Your task to perform on an android device: change keyboard looks Image 0: 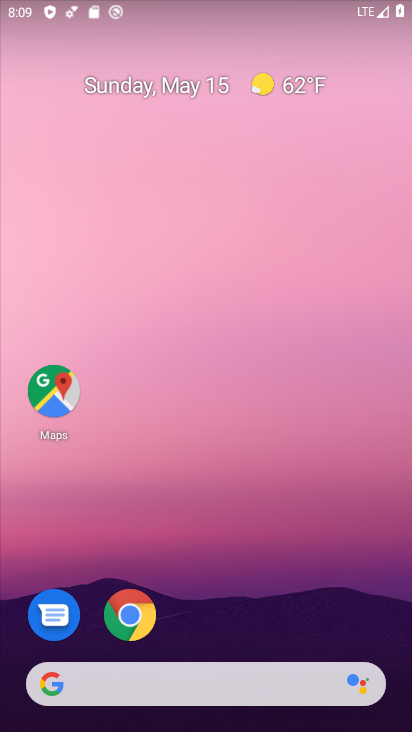
Step 0: drag from (208, 554) to (288, 2)
Your task to perform on an android device: change keyboard looks Image 1: 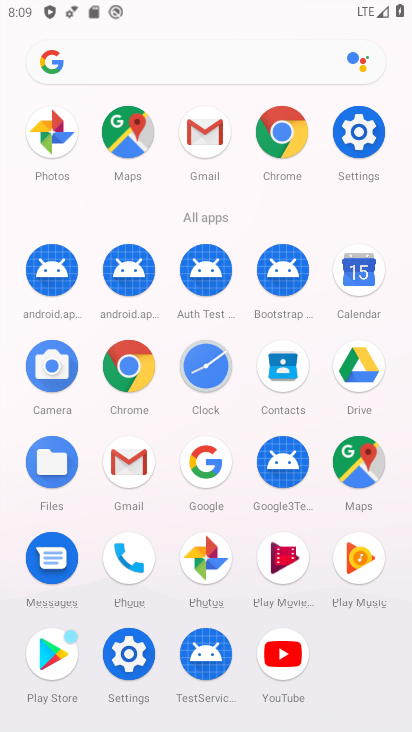
Step 1: click (344, 162)
Your task to perform on an android device: change keyboard looks Image 2: 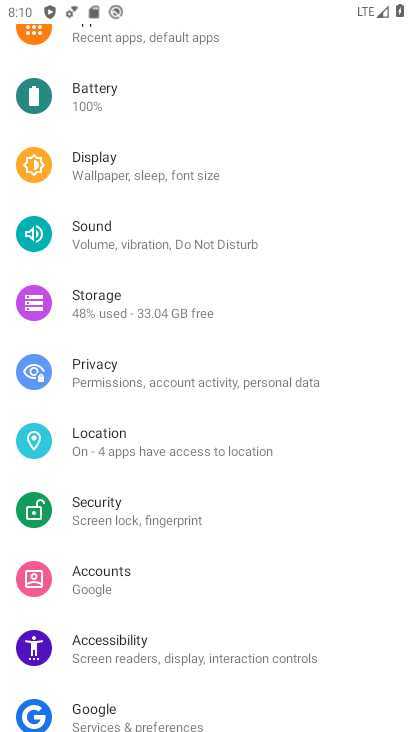
Step 2: drag from (203, 499) to (213, 184)
Your task to perform on an android device: change keyboard looks Image 3: 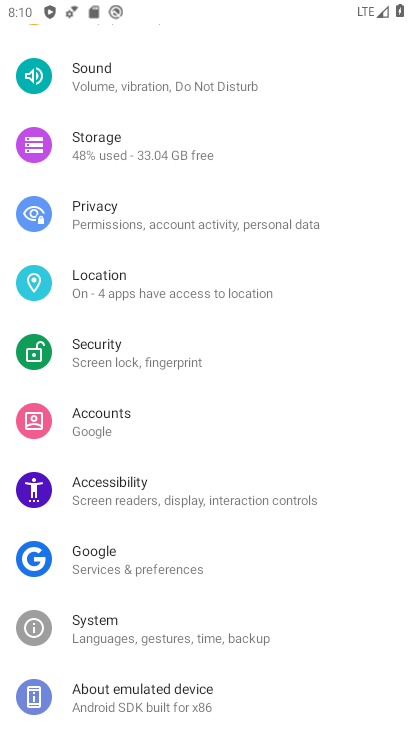
Step 3: click (130, 624)
Your task to perform on an android device: change keyboard looks Image 4: 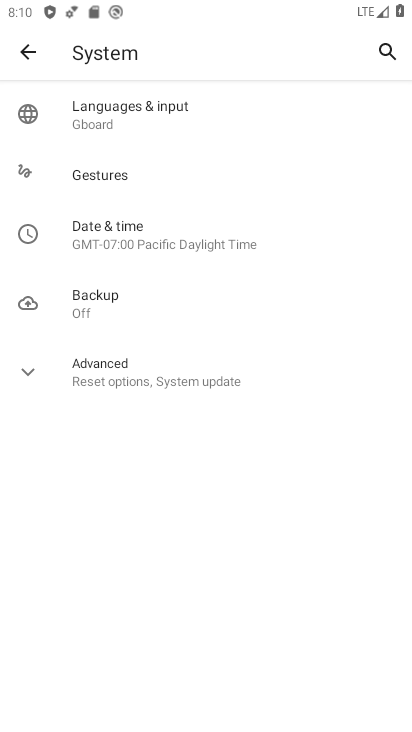
Step 4: click (150, 106)
Your task to perform on an android device: change keyboard looks Image 5: 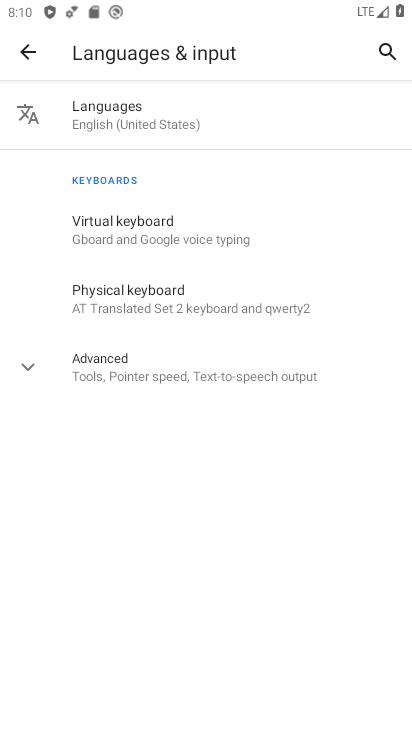
Step 5: click (139, 237)
Your task to perform on an android device: change keyboard looks Image 6: 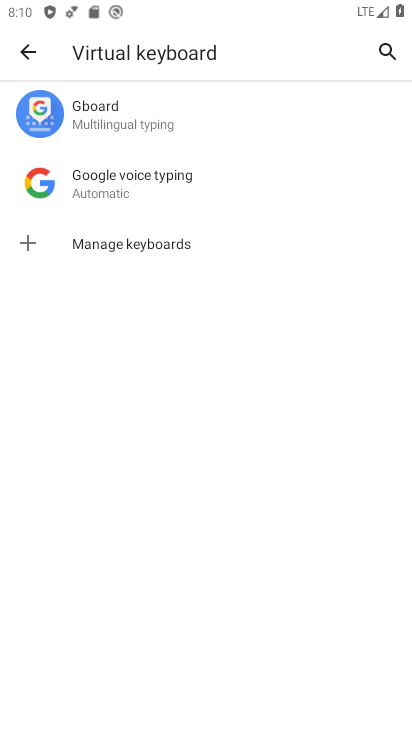
Step 6: click (149, 122)
Your task to perform on an android device: change keyboard looks Image 7: 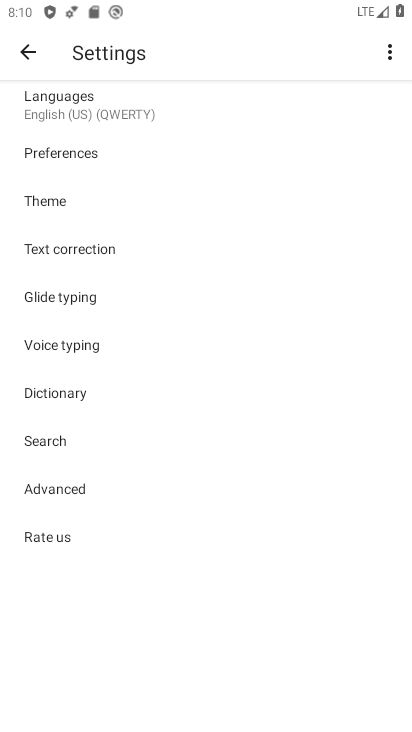
Step 7: click (72, 210)
Your task to perform on an android device: change keyboard looks Image 8: 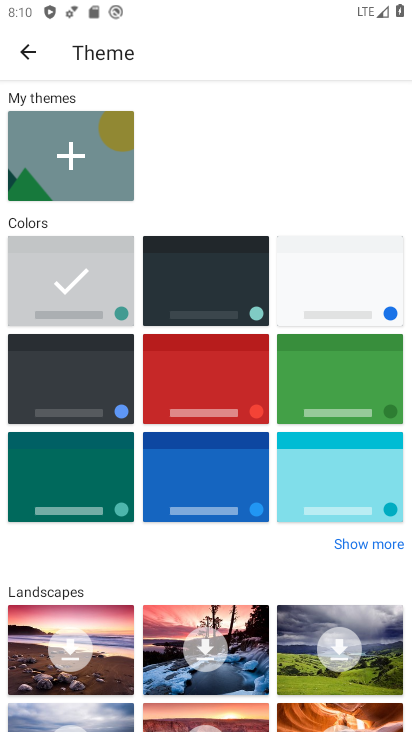
Step 8: click (256, 322)
Your task to perform on an android device: change keyboard looks Image 9: 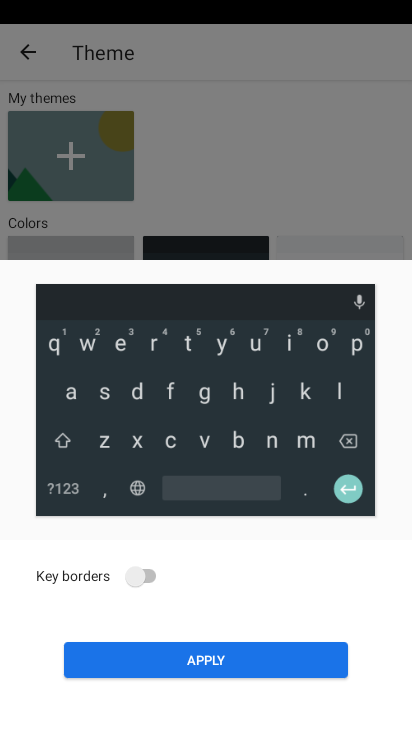
Step 9: click (168, 674)
Your task to perform on an android device: change keyboard looks Image 10: 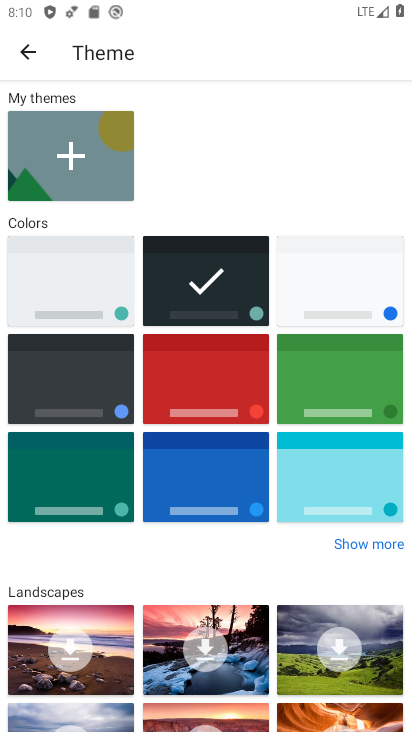
Step 10: task complete